Your task to perform on an android device: change keyboard looks Image 0: 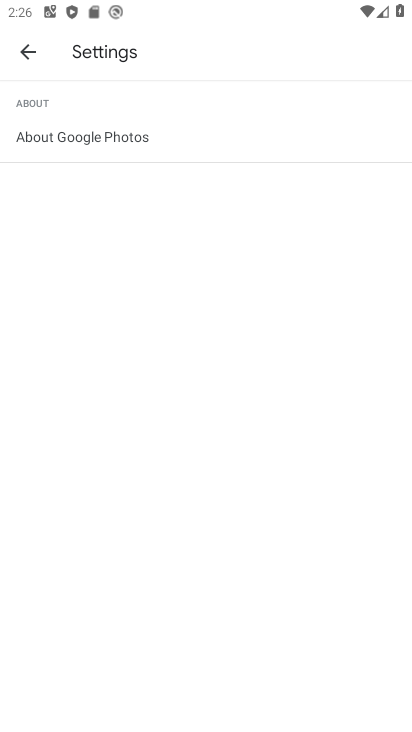
Step 0: press home button
Your task to perform on an android device: change keyboard looks Image 1: 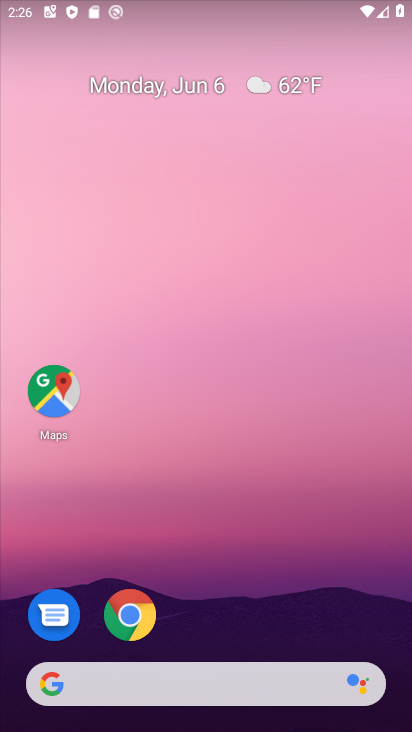
Step 1: drag from (228, 694) to (284, 0)
Your task to perform on an android device: change keyboard looks Image 2: 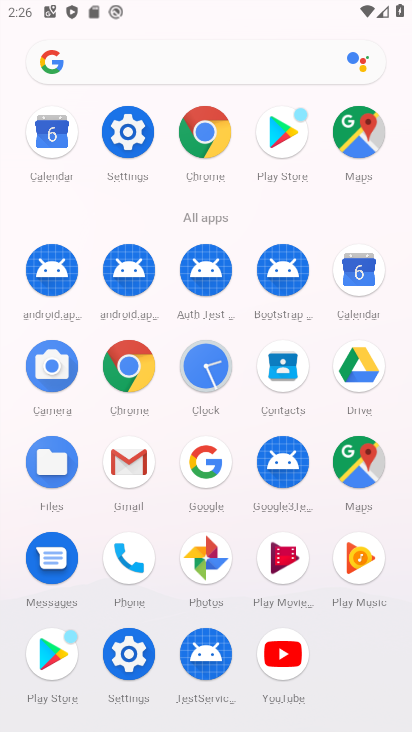
Step 2: click (132, 140)
Your task to perform on an android device: change keyboard looks Image 3: 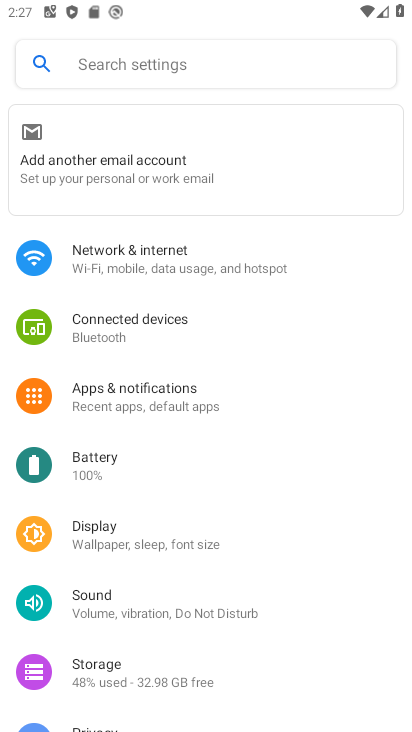
Step 3: drag from (158, 692) to (159, 239)
Your task to perform on an android device: change keyboard looks Image 4: 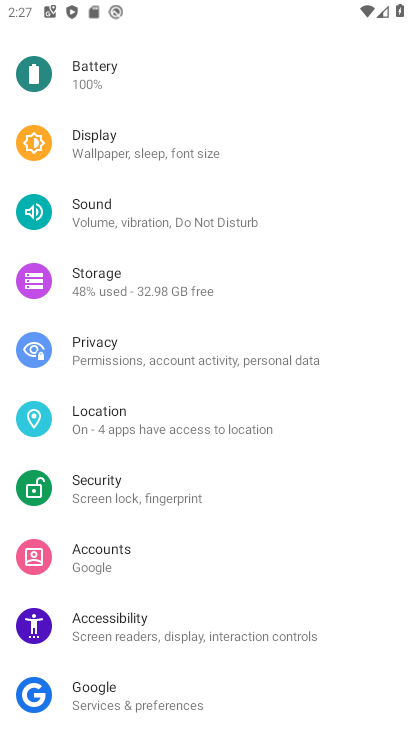
Step 4: drag from (153, 703) to (180, 274)
Your task to perform on an android device: change keyboard looks Image 5: 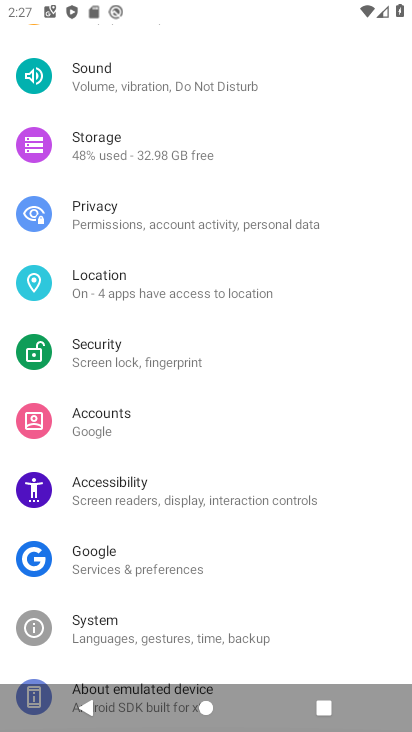
Step 5: click (156, 629)
Your task to perform on an android device: change keyboard looks Image 6: 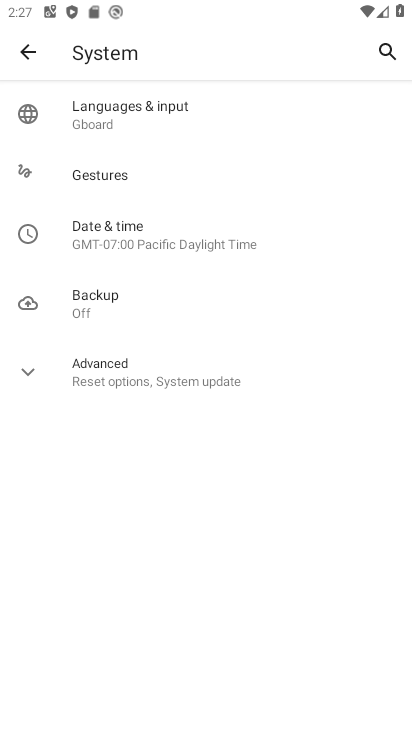
Step 6: click (140, 104)
Your task to perform on an android device: change keyboard looks Image 7: 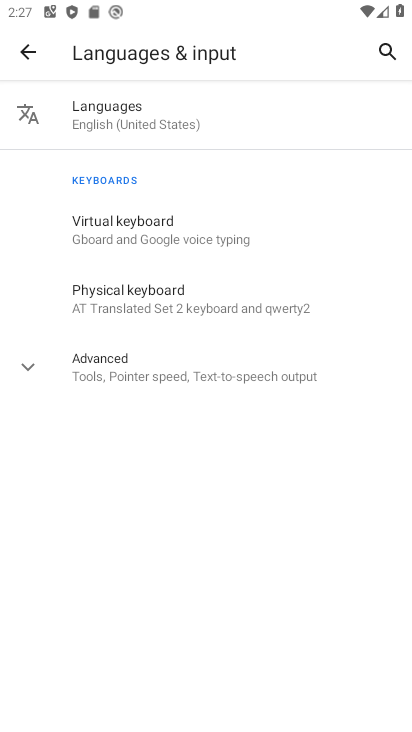
Step 7: click (127, 229)
Your task to perform on an android device: change keyboard looks Image 8: 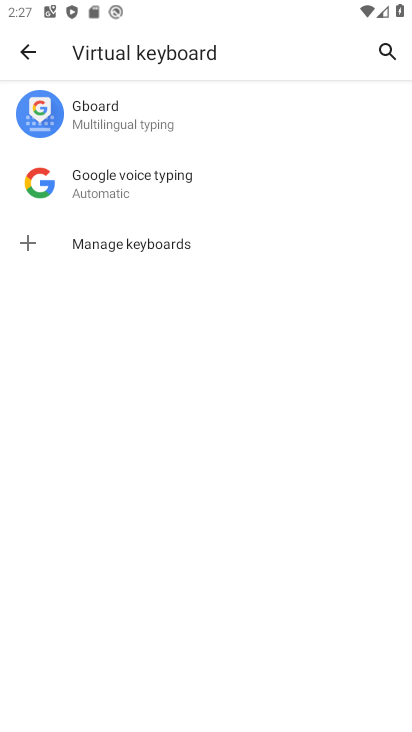
Step 8: click (105, 94)
Your task to perform on an android device: change keyboard looks Image 9: 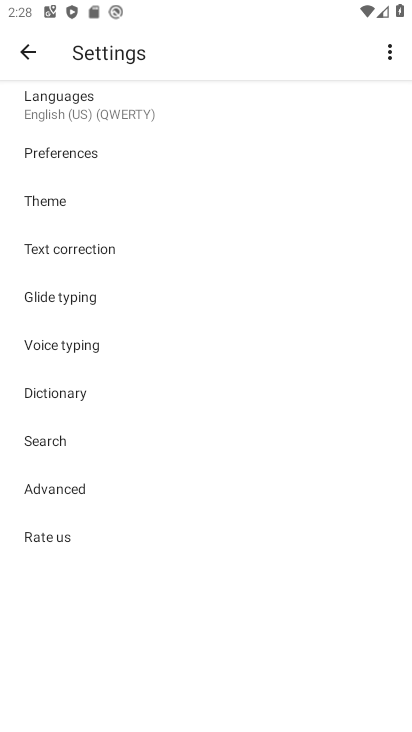
Step 9: click (56, 205)
Your task to perform on an android device: change keyboard looks Image 10: 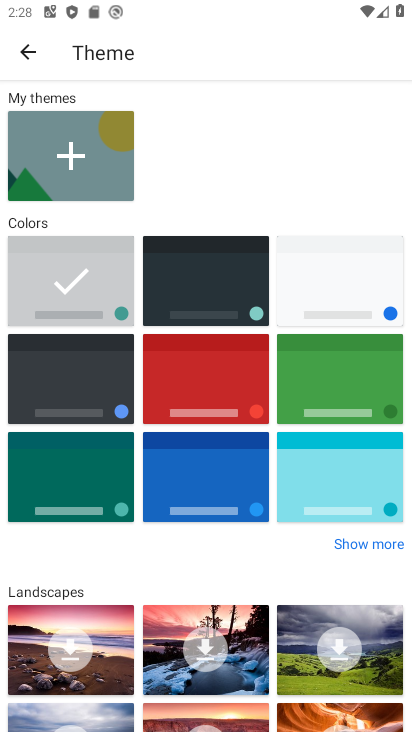
Step 10: click (224, 297)
Your task to perform on an android device: change keyboard looks Image 11: 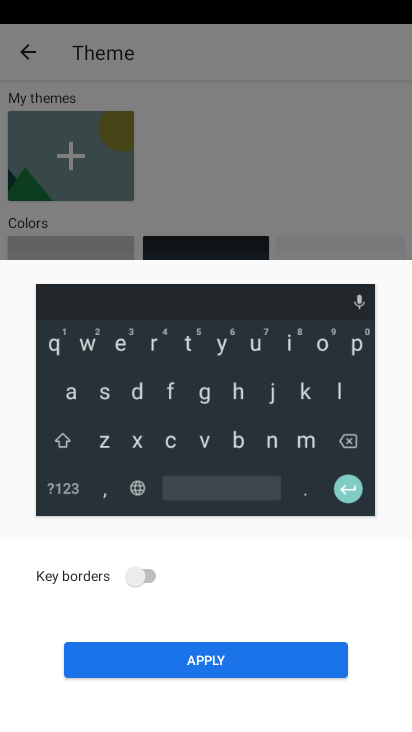
Step 11: click (251, 661)
Your task to perform on an android device: change keyboard looks Image 12: 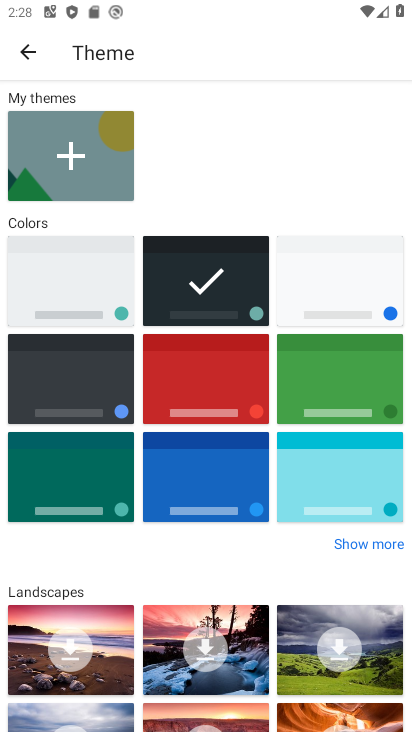
Step 12: task complete